Your task to perform on an android device: turn off data saver in the chrome app Image 0: 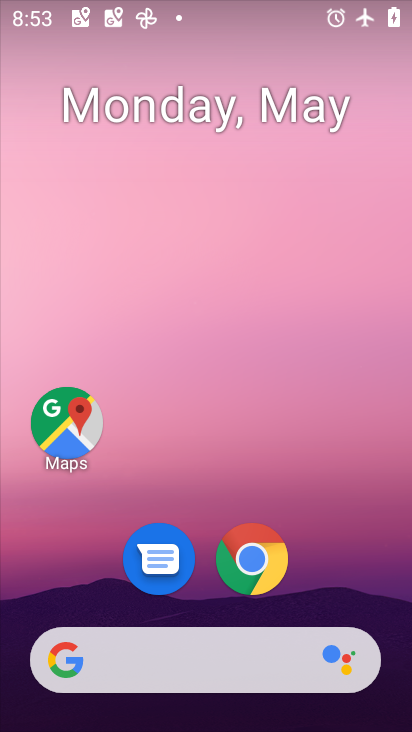
Step 0: drag from (388, 625) to (315, 18)
Your task to perform on an android device: turn off data saver in the chrome app Image 1: 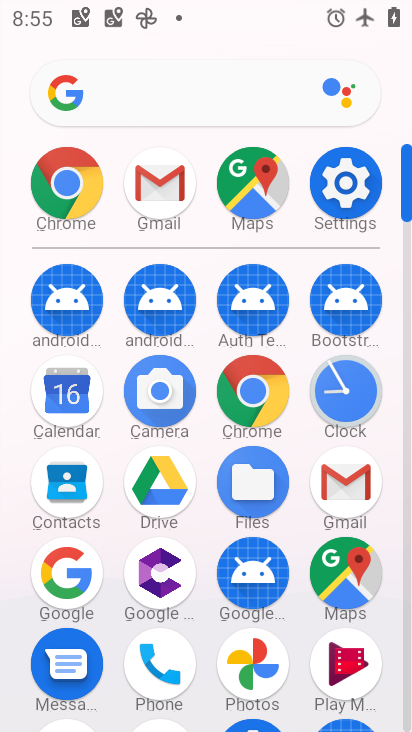
Step 1: click (268, 401)
Your task to perform on an android device: turn off data saver in the chrome app Image 2: 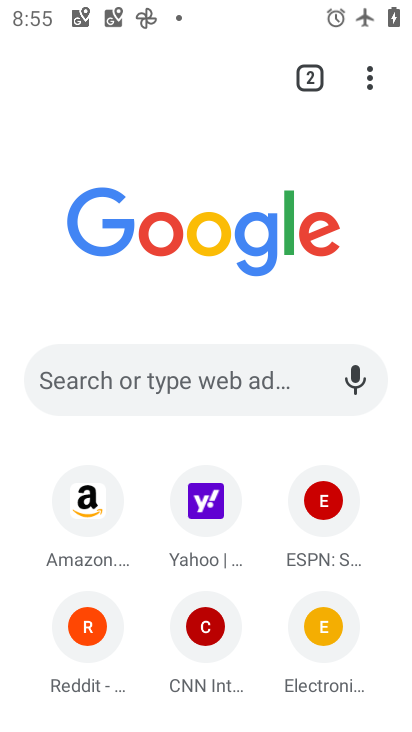
Step 2: click (370, 70)
Your task to perform on an android device: turn off data saver in the chrome app Image 3: 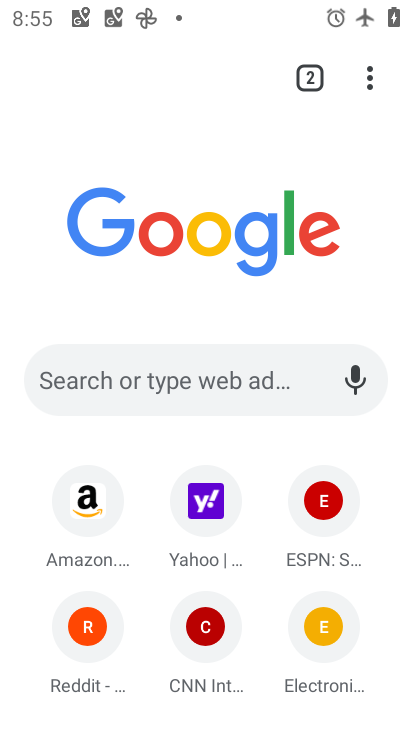
Step 3: click (370, 70)
Your task to perform on an android device: turn off data saver in the chrome app Image 4: 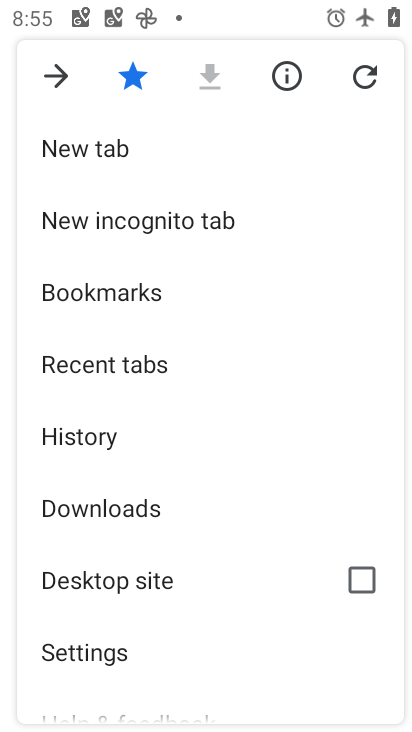
Step 4: drag from (148, 649) to (233, 190)
Your task to perform on an android device: turn off data saver in the chrome app Image 5: 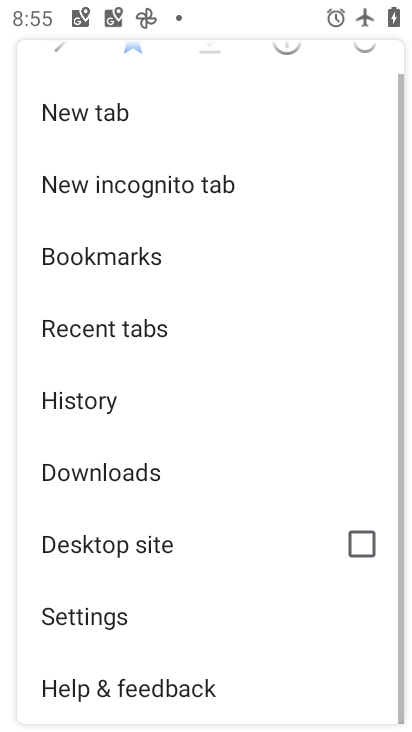
Step 5: click (113, 608)
Your task to perform on an android device: turn off data saver in the chrome app Image 6: 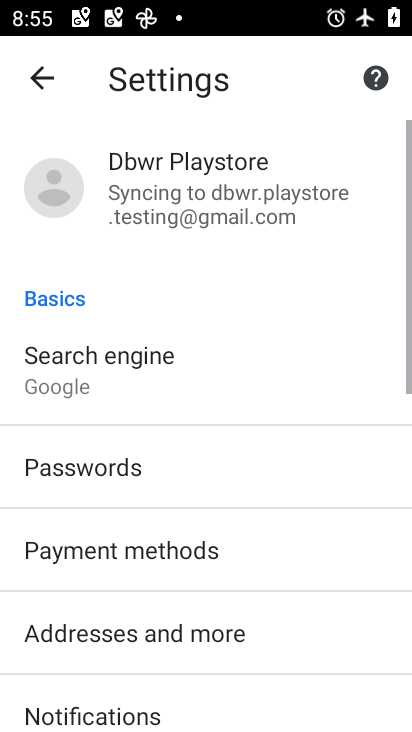
Step 6: drag from (113, 608) to (203, 111)
Your task to perform on an android device: turn off data saver in the chrome app Image 7: 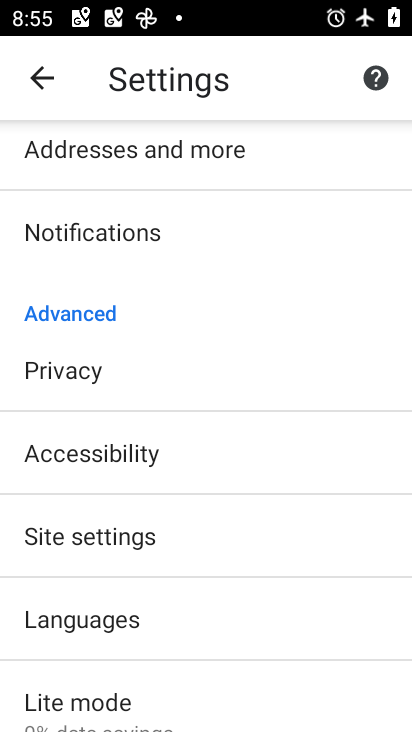
Step 7: click (174, 705)
Your task to perform on an android device: turn off data saver in the chrome app Image 8: 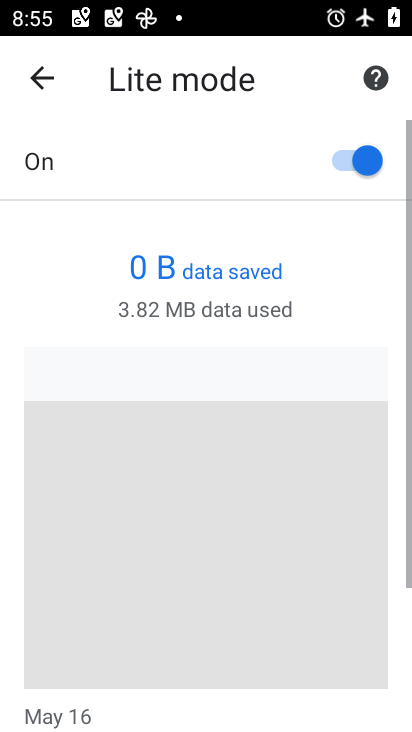
Step 8: click (358, 155)
Your task to perform on an android device: turn off data saver in the chrome app Image 9: 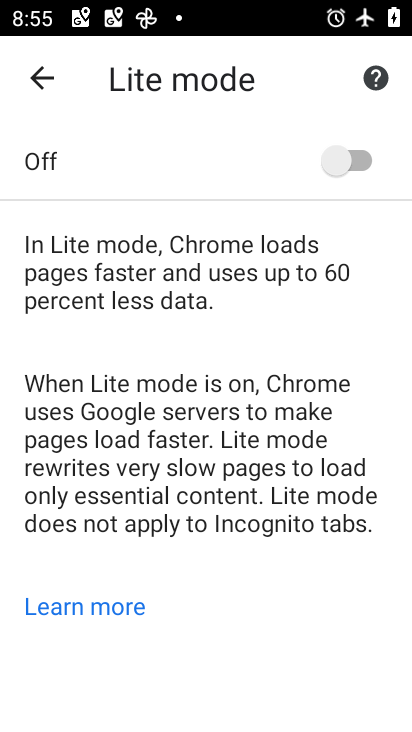
Step 9: task complete